Your task to perform on an android device: turn on showing notifications on the lock screen Image 0: 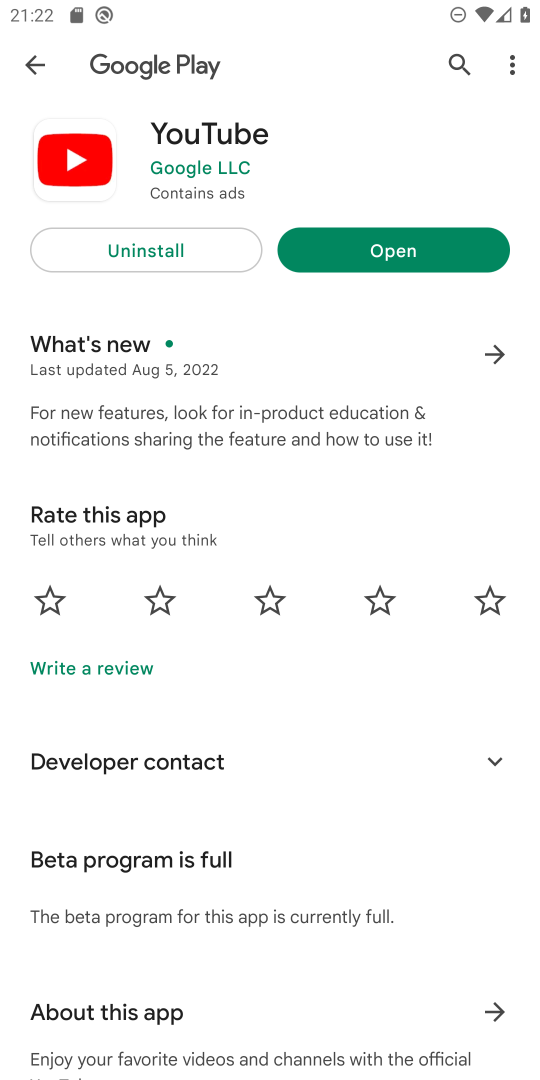
Step 0: press home button
Your task to perform on an android device: turn on showing notifications on the lock screen Image 1: 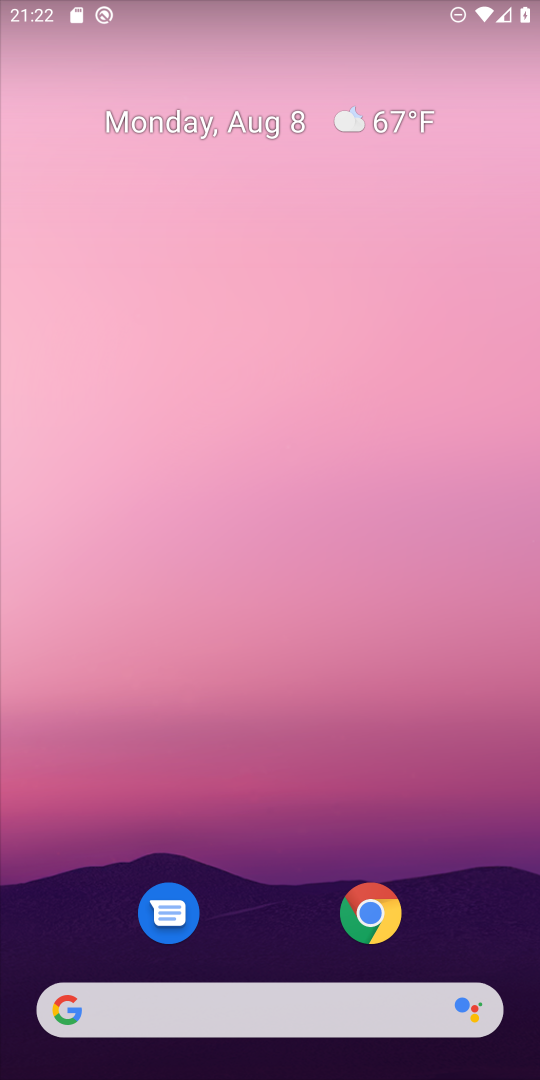
Step 1: drag from (239, 1004) to (402, 393)
Your task to perform on an android device: turn on showing notifications on the lock screen Image 2: 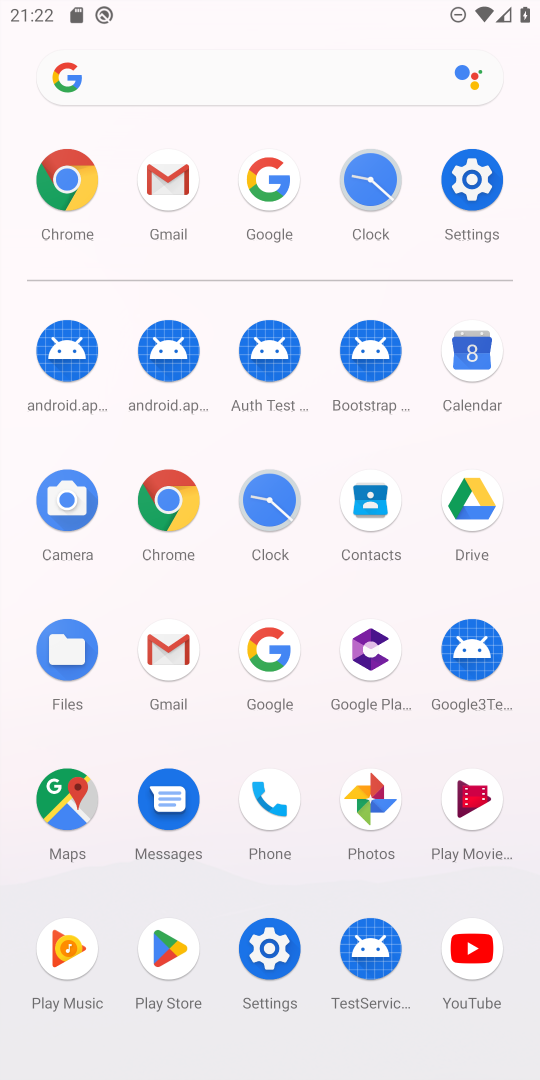
Step 2: click (269, 950)
Your task to perform on an android device: turn on showing notifications on the lock screen Image 3: 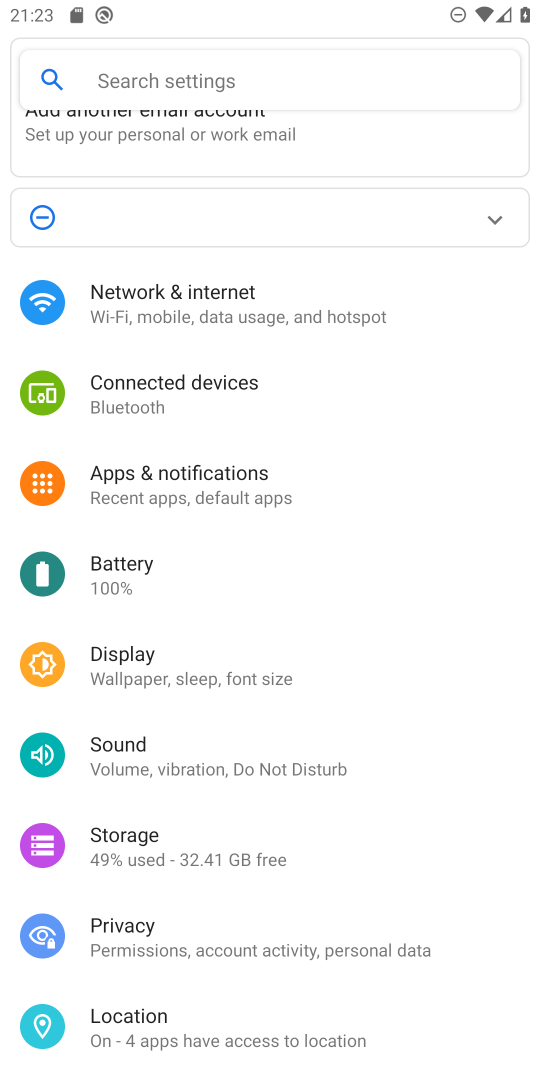
Step 3: click (187, 485)
Your task to perform on an android device: turn on showing notifications on the lock screen Image 4: 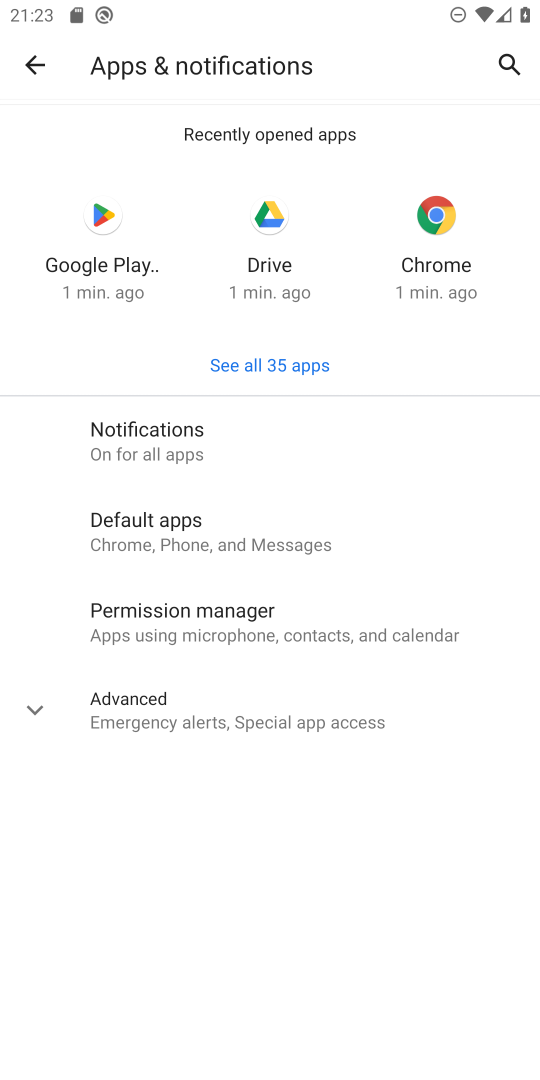
Step 4: click (173, 446)
Your task to perform on an android device: turn on showing notifications on the lock screen Image 5: 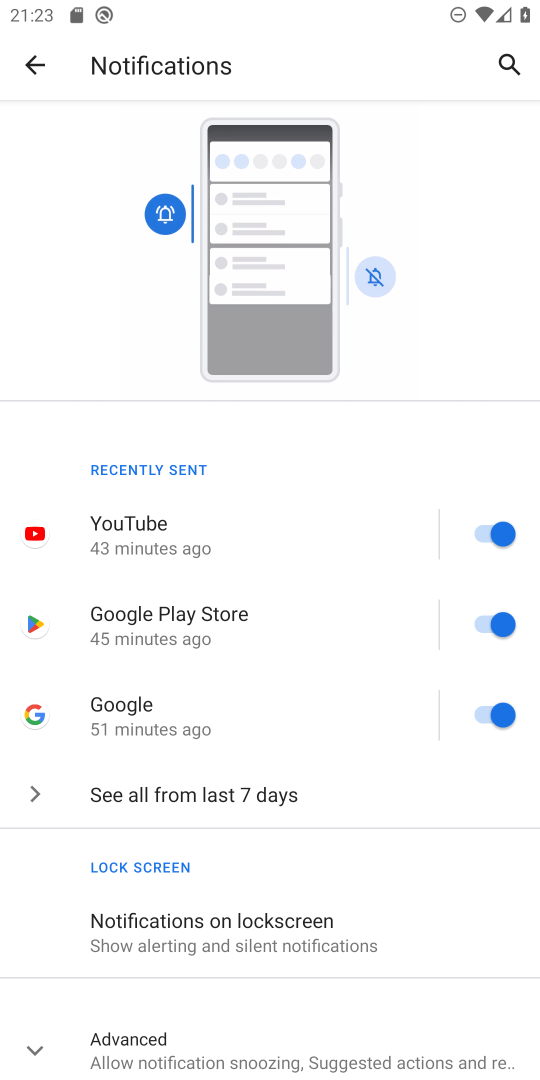
Step 5: click (202, 945)
Your task to perform on an android device: turn on showing notifications on the lock screen Image 6: 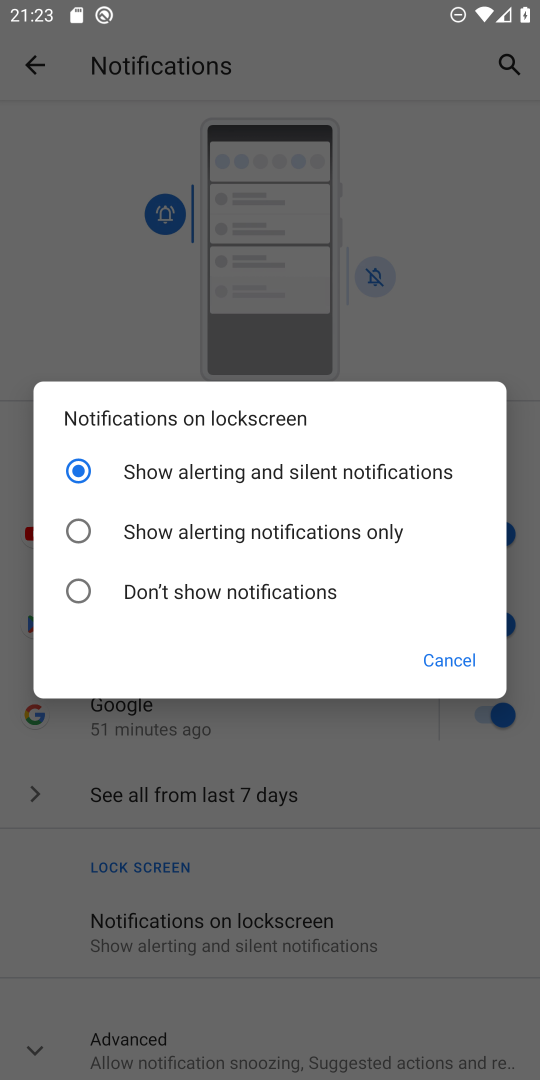
Step 6: click (77, 478)
Your task to perform on an android device: turn on showing notifications on the lock screen Image 7: 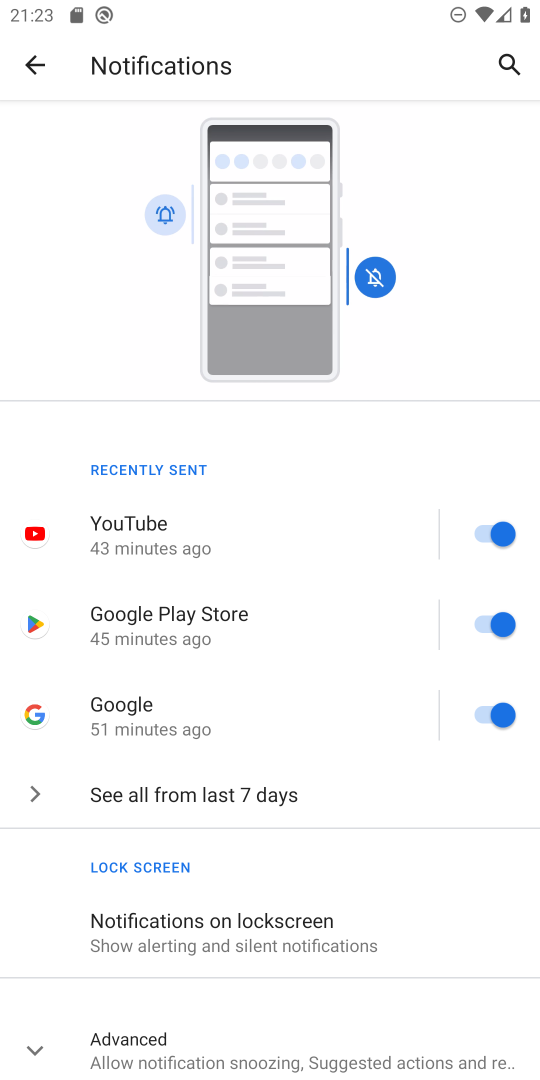
Step 7: task complete